Your task to perform on an android device: turn off improve location accuracy Image 0: 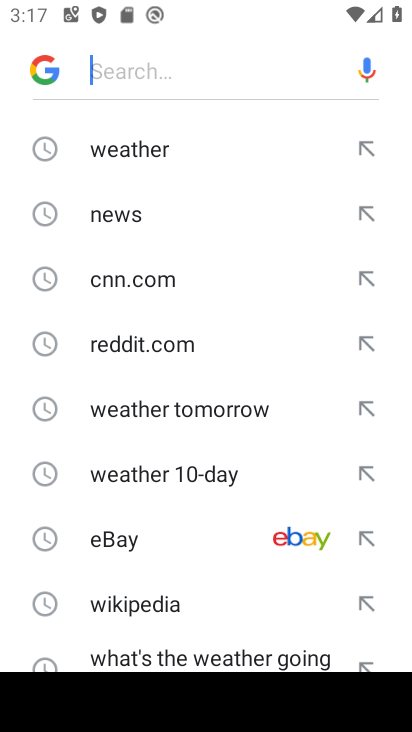
Step 0: press home button
Your task to perform on an android device: turn off improve location accuracy Image 1: 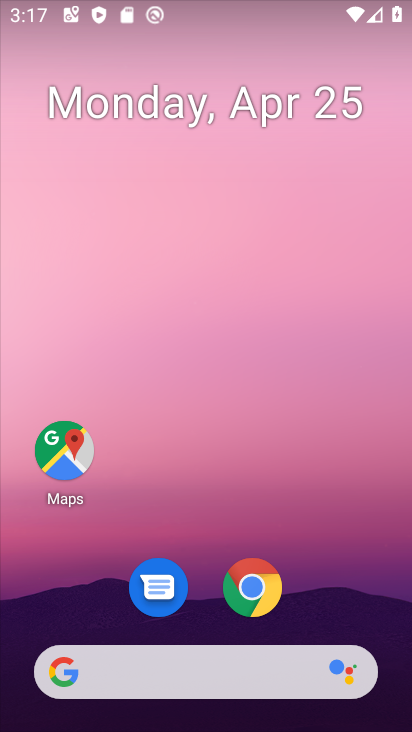
Step 1: drag from (197, 600) to (215, 111)
Your task to perform on an android device: turn off improve location accuracy Image 2: 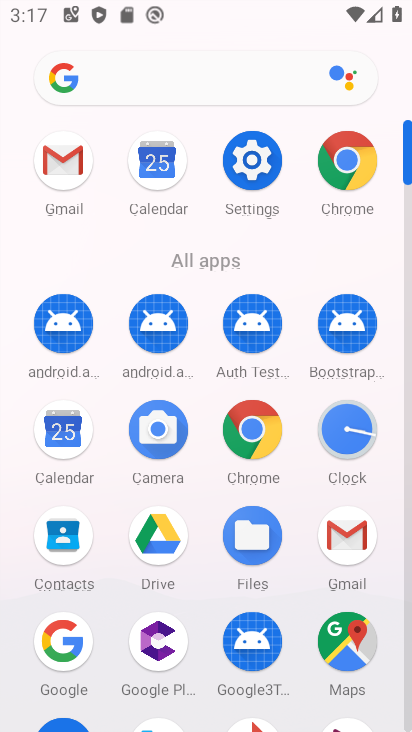
Step 2: click (255, 154)
Your task to perform on an android device: turn off improve location accuracy Image 3: 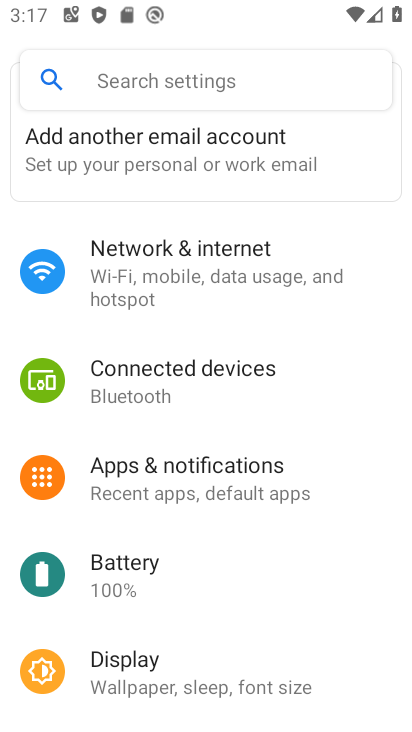
Step 3: drag from (209, 608) to (227, 171)
Your task to perform on an android device: turn off improve location accuracy Image 4: 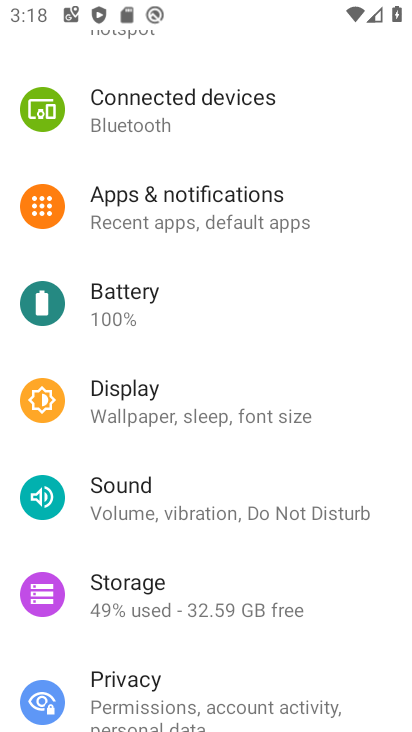
Step 4: drag from (246, 605) to (233, 155)
Your task to perform on an android device: turn off improve location accuracy Image 5: 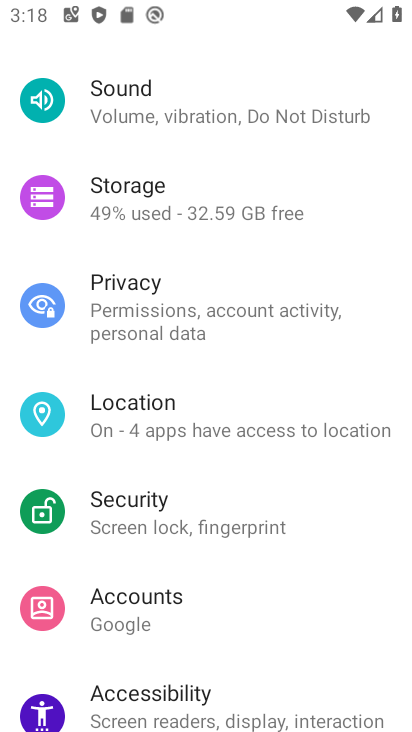
Step 5: click (157, 404)
Your task to perform on an android device: turn off improve location accuracy Image 6: 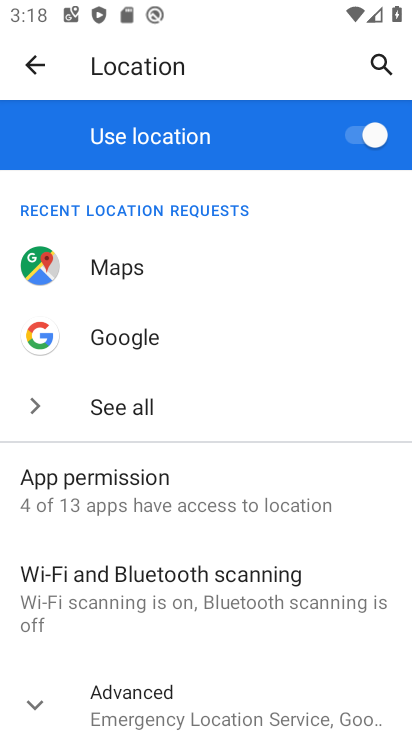
Step 6: drag from (339, 558) to (279, 151)
Your task to perform on an android device: turn off improve location accuracy Image 7: 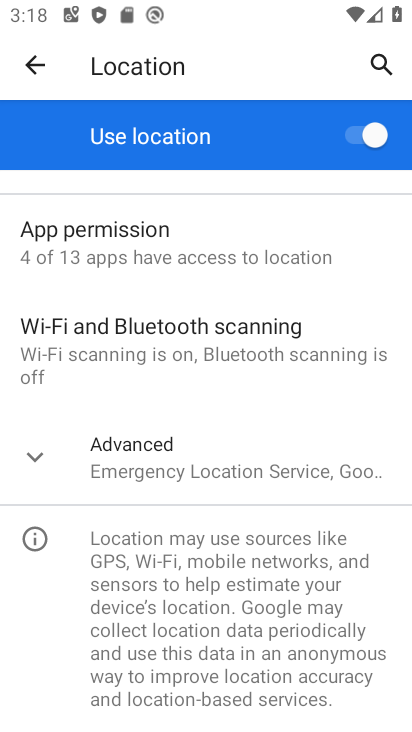
Step 7: click (149, 447)
Your task to perform on an android device: turn off improve location accuracy Image 8: 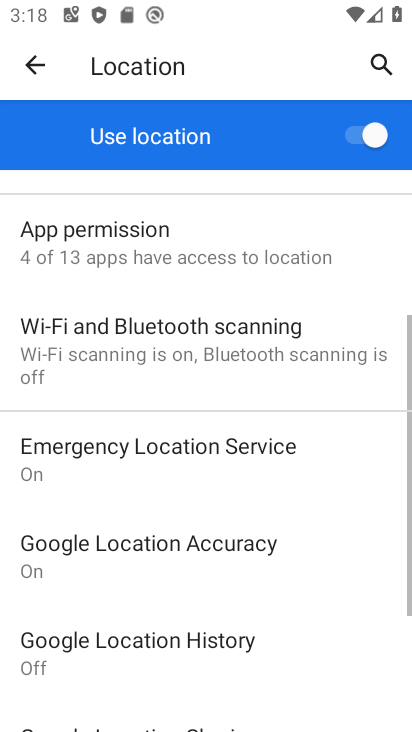
Step 8: drag from (199, 555) to (199, 409)
Your task to perform on an android device: turn off improve location accuracy Image 9: 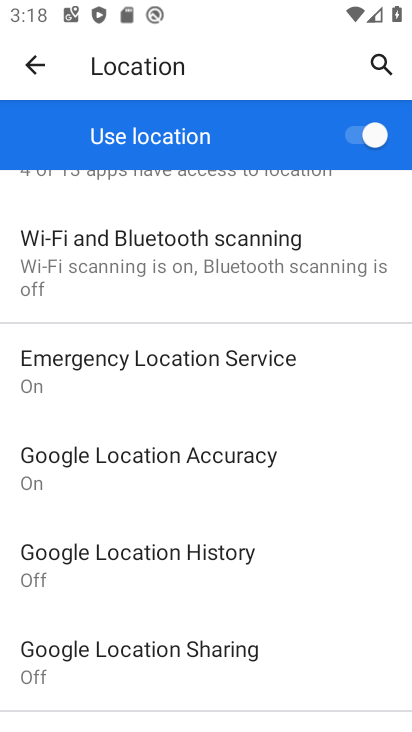
Step 9: click (168, 463)
Your task to perform on an android device: turn off improve location accuracy Image 10: 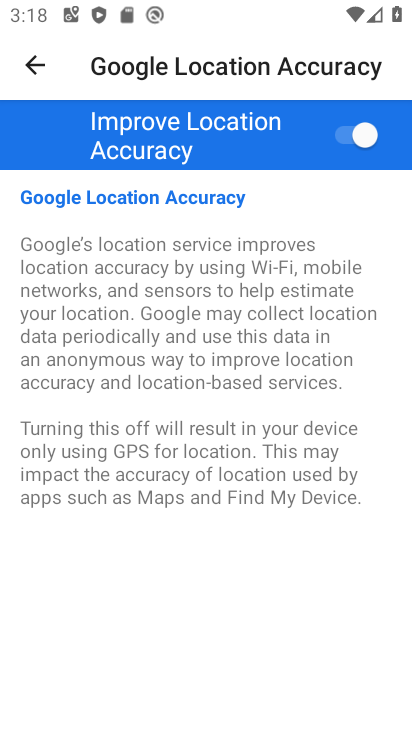
Step 10: click (366, 137)
Your task to perform on an android device: turn off improve location accuracy Image 11: 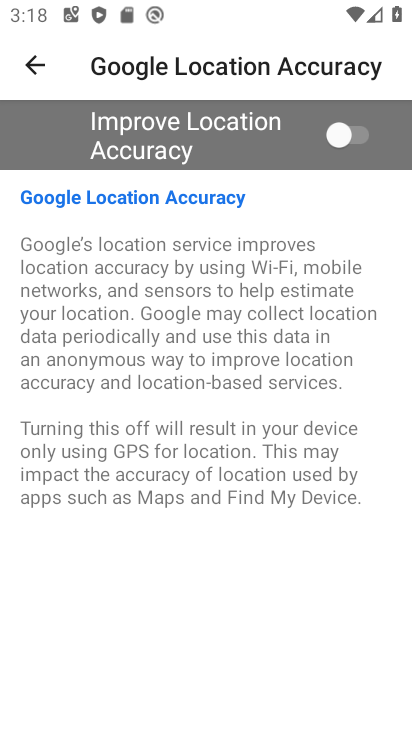
Step 11: task complete